Your task to perform on an android device: move a message to another label in the gmail app Image 0: 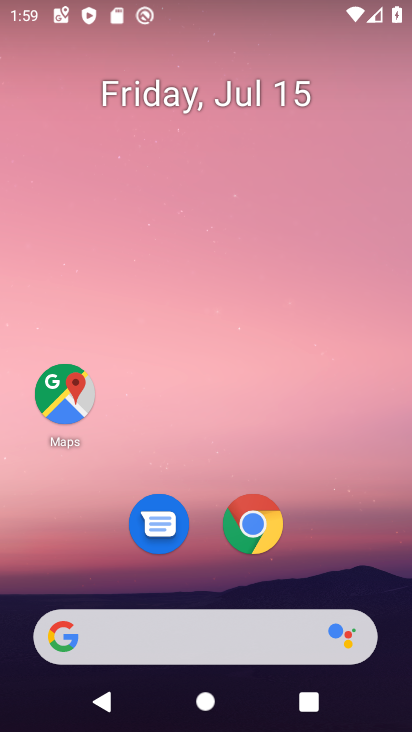
Step 0: drag from (185, 630) to (301, 185)
Your task to perform on an android device: move a message to another label in the gmail app Image 1: 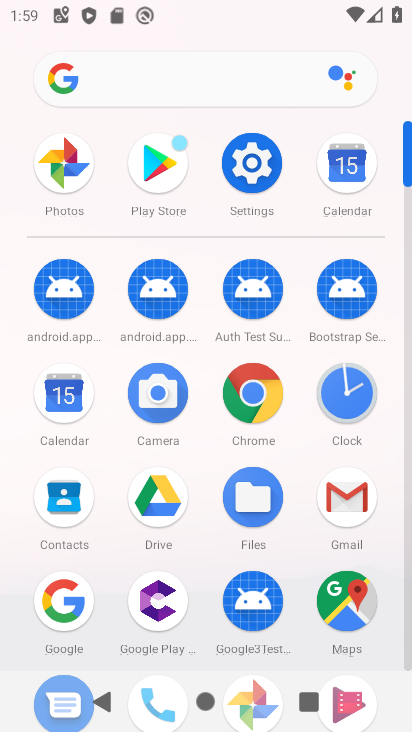
Step 1: click (336, 500)
Your task to perform on an android device: move a message to another label in the gmail app Image 2: 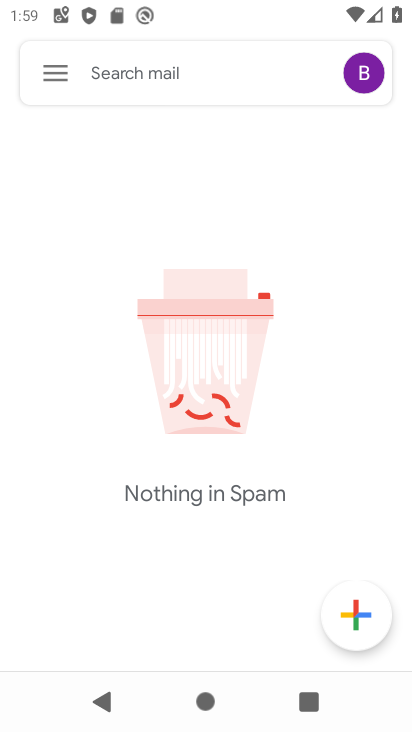
Step 2: click (56, 74)
Your task to perform on an android device: move a message to another label in the gmail app Image 3: 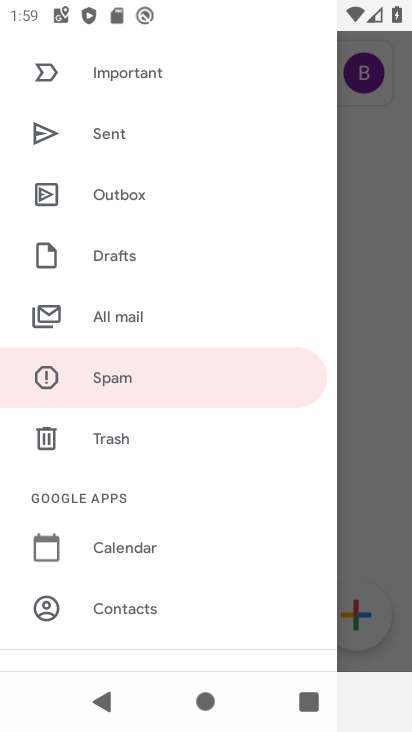
Step 3: click (105, 318)
Your task to perform on an android device: move a message to another label in the gmail app Image 4: 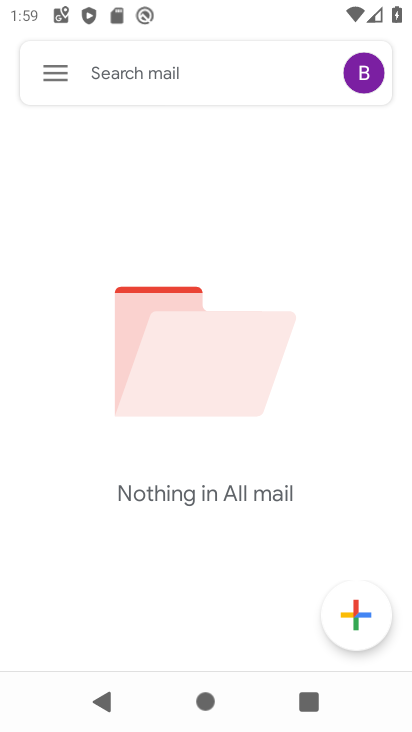
Step 4: task complete